Your task to perform on an android device: Go to location settings Image 0: 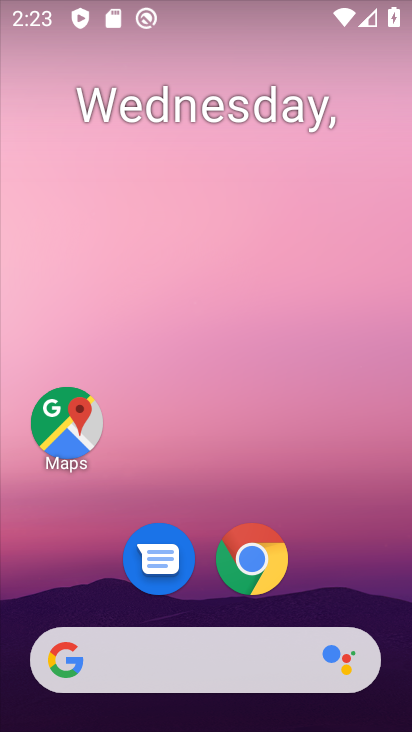
Step 0: drag from (208, 706) to (219, 129)
Your task to perform on an android device: Go to location settings Image 1: 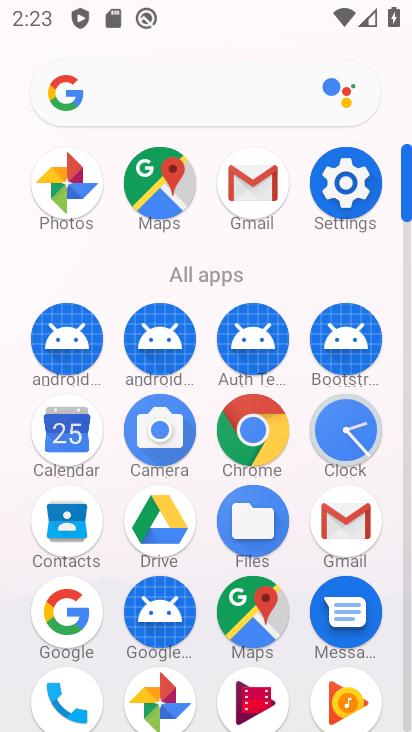
Step 1: click (341, 183)
Your task to perform on an android device: Go to location settings Image 2: 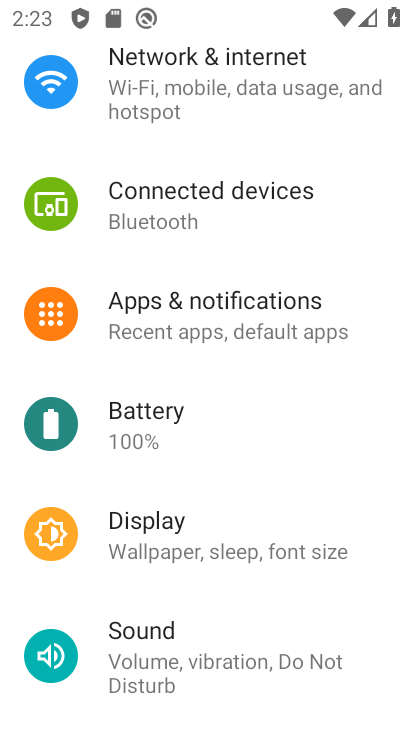
Step 2: drag from (180, 643) to (190, 262)
Your task to perform on an android device: Go to location settings Image 3: 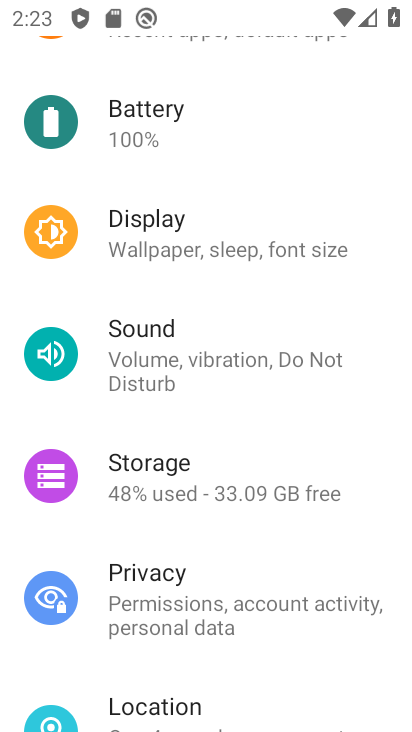
Step 3: click (145, 708)
Your task to perform on an android device: Go to location settings Image 4: 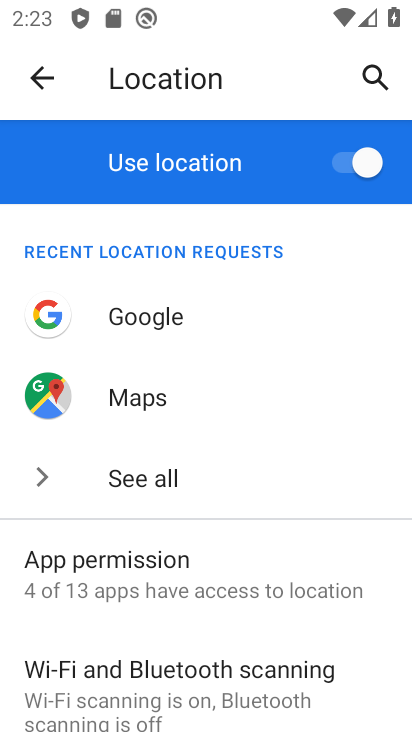
Step 4: task complete